Your task to perform on an android device: Open the Play Movies app and select the watchlist tab. Image 0: 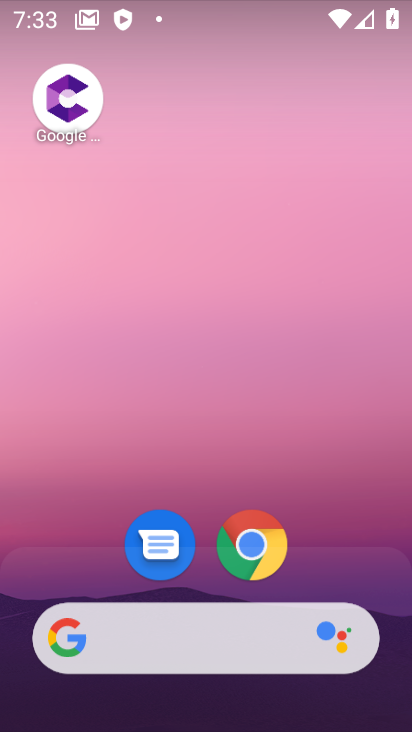
Step 0: drag from (222, 592) to (283, 165)
Your task to perform on an android device: Open the Play Movies app and select the watchlist tab. Image 1: 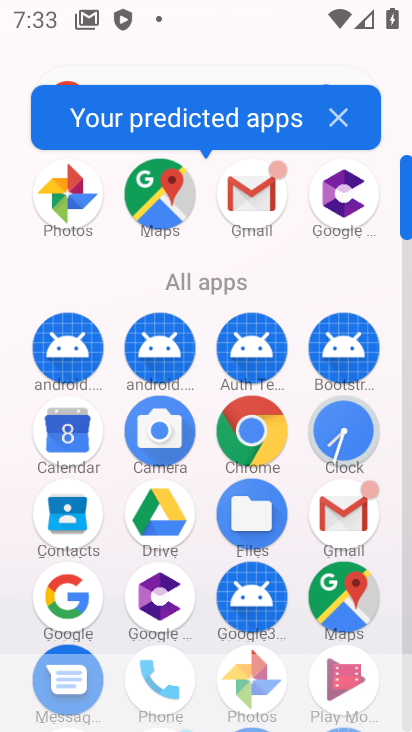
Step 1: drag from (290, 633) to (305, 189)
Your task to perform on an android device: Open the Play Movies app and select the watchlist tab. Image 2: 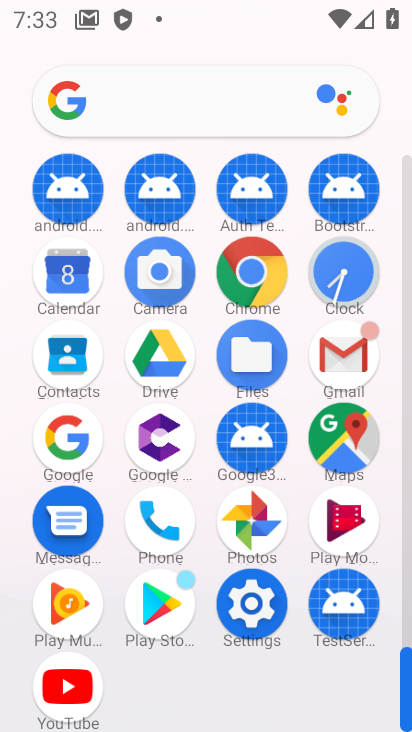
Step 2: click (329, 528)
Your task to perform on an android device: Open the Play Movies app and select the watchlist tab. Image 3: 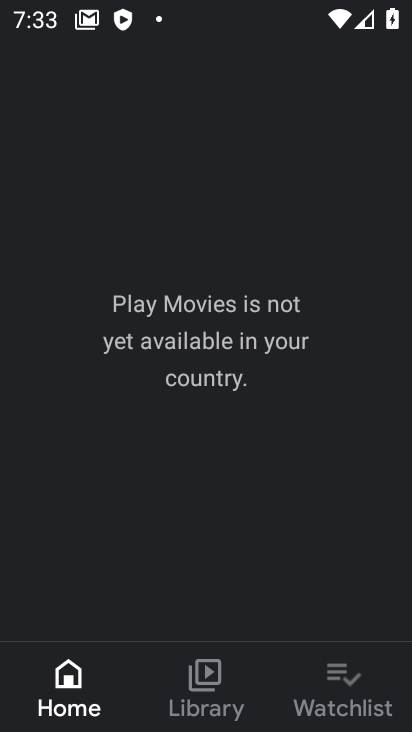
Step 3: click (343, 674)
Your task to perform on an android device: Open the Play Movies app and select the watchlist tab. Image 4: 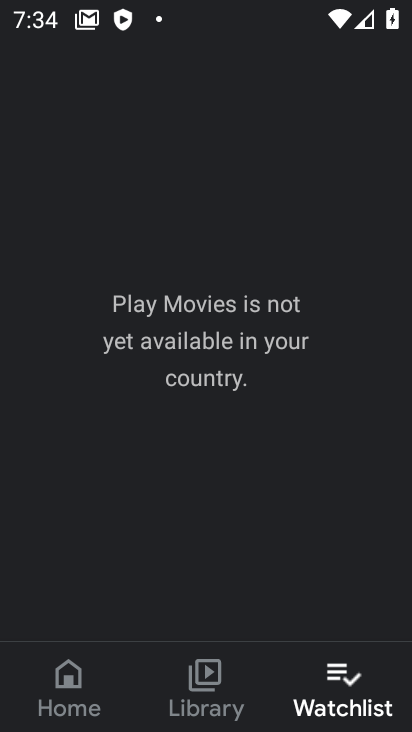
Step 4: task complete